Your task to perform on an android device: open app "Microsoft Excel" Image 0: 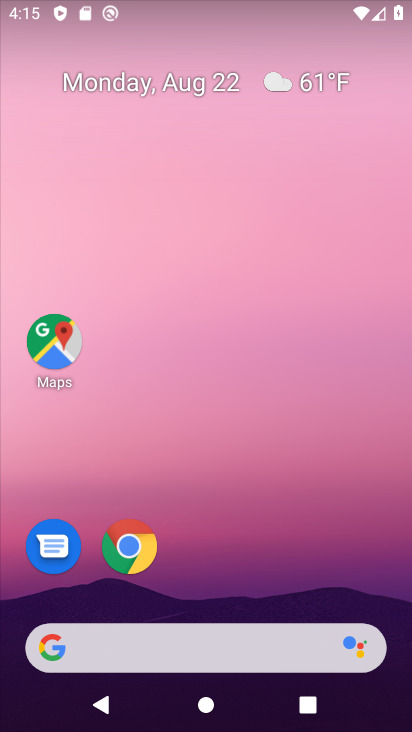
Step 0: drag from (182, 512) to (157, 84)
Your task to perform on an android device: open app "Microsoft Excel" Image 1: 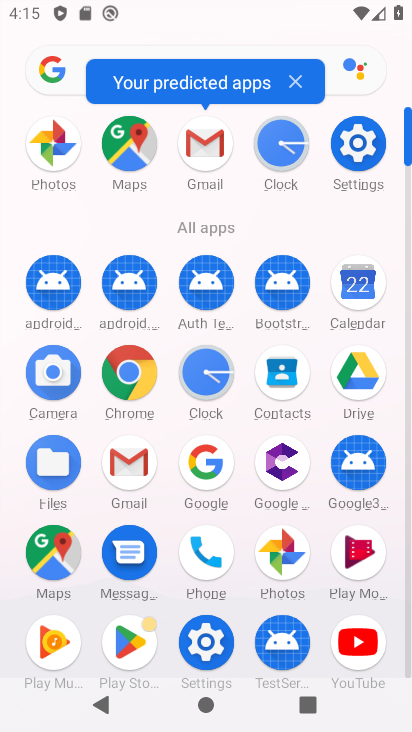
Step 1: click (211, 45)
Your task to perform on an android device: open app "Microsoft Excel" Image 2: 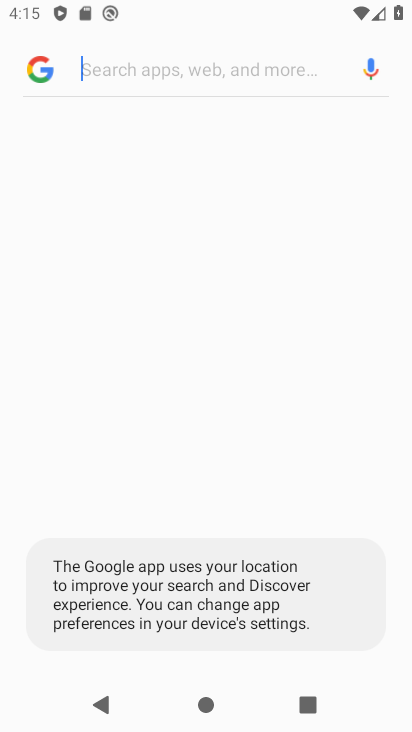
Step 2: click (124, 651)
Your task to perform on an android device: open app "Microsoft Excel" Image 3: 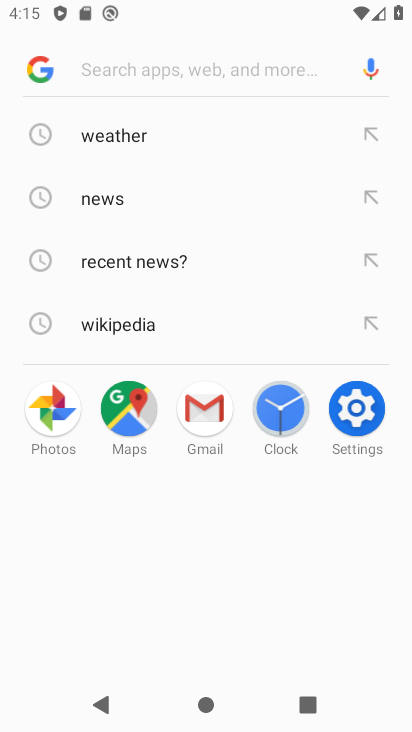
Step 3: press home button
Your task to perform on an android device: open app "Microsoft Excel" Image 4: 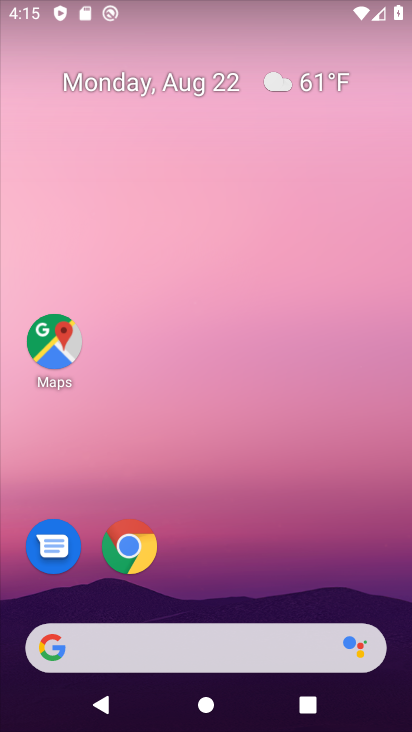
Step 4: drag from (148, 558) to (190, 0)
Your task to perform on an android device: open app "Microsoft Excel" Image 5: 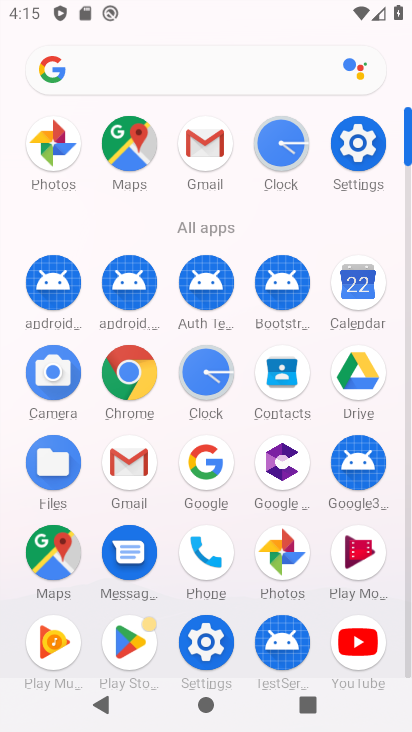
Step 5: click (113, 644)
Your task to perform on an android device: open app "Microsoft Excel" Image 6: 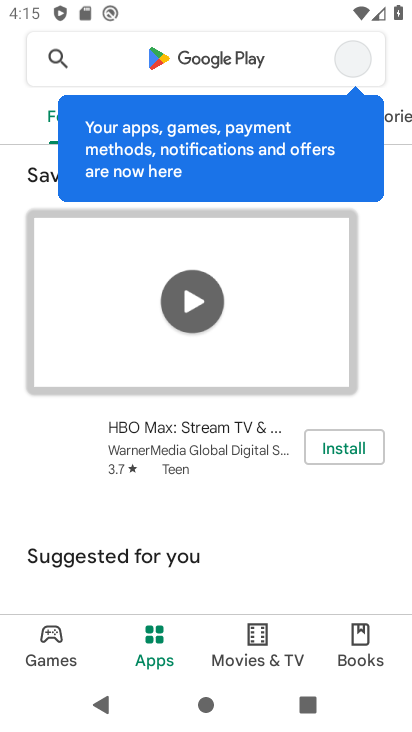
Step 6: click (232, 51)
Your task to perform on an android device: open app "Microsoft Excel" Image 7: 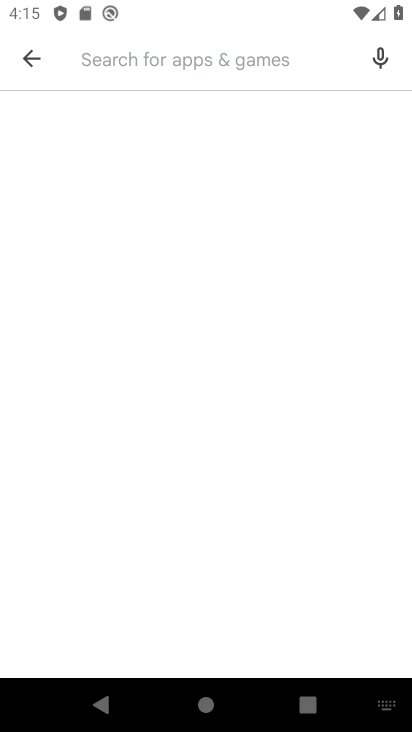
Step 7: type "Microsoft Excel"
Your task to perform on an android device: open app "Microsoft Excel" Image 8: 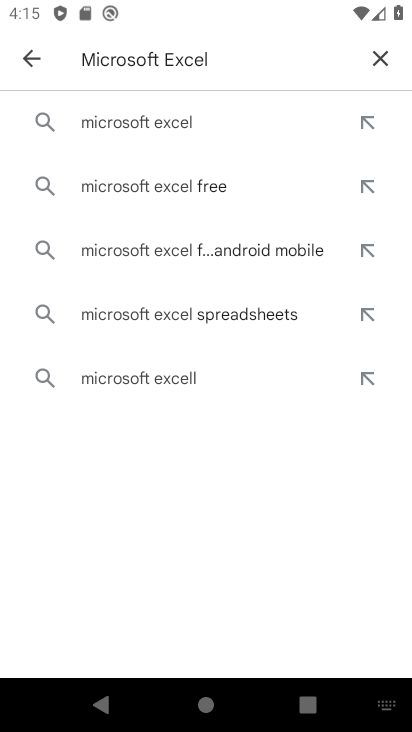
Step 8: click (145, 123)
Your task to perform on an android device: open app "Microsoft Excel" Image 9: 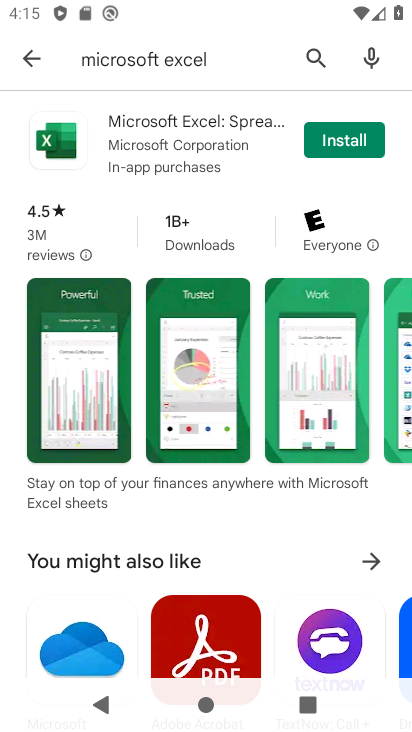
Step 9: click (326, 138)
Your task to perform on an android device: open app "Microsoft Excel" Image 10: 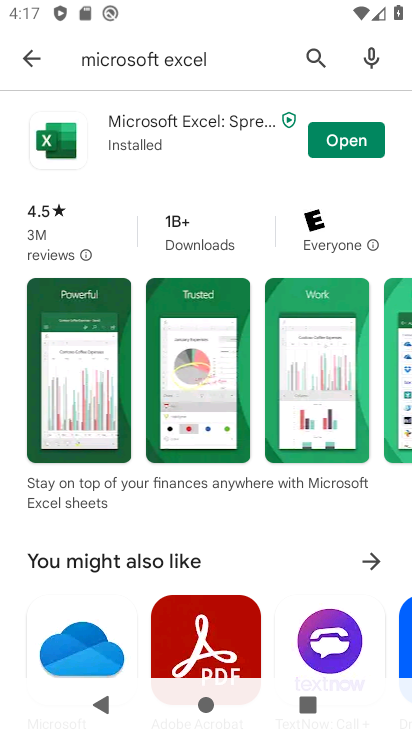
Step 10: click (329, 147)
Your task to perform on an android device: open app "Microsoft Excel" Image 11: 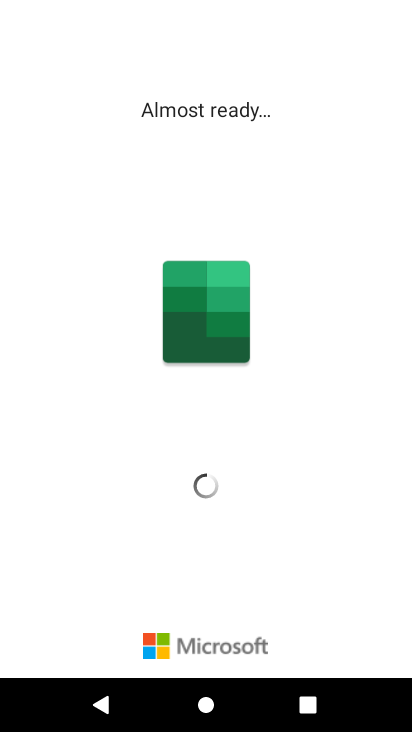
Step 11: task complete